Your task to perform on an android device: What's the weather going to be tomorrow? Image 0: 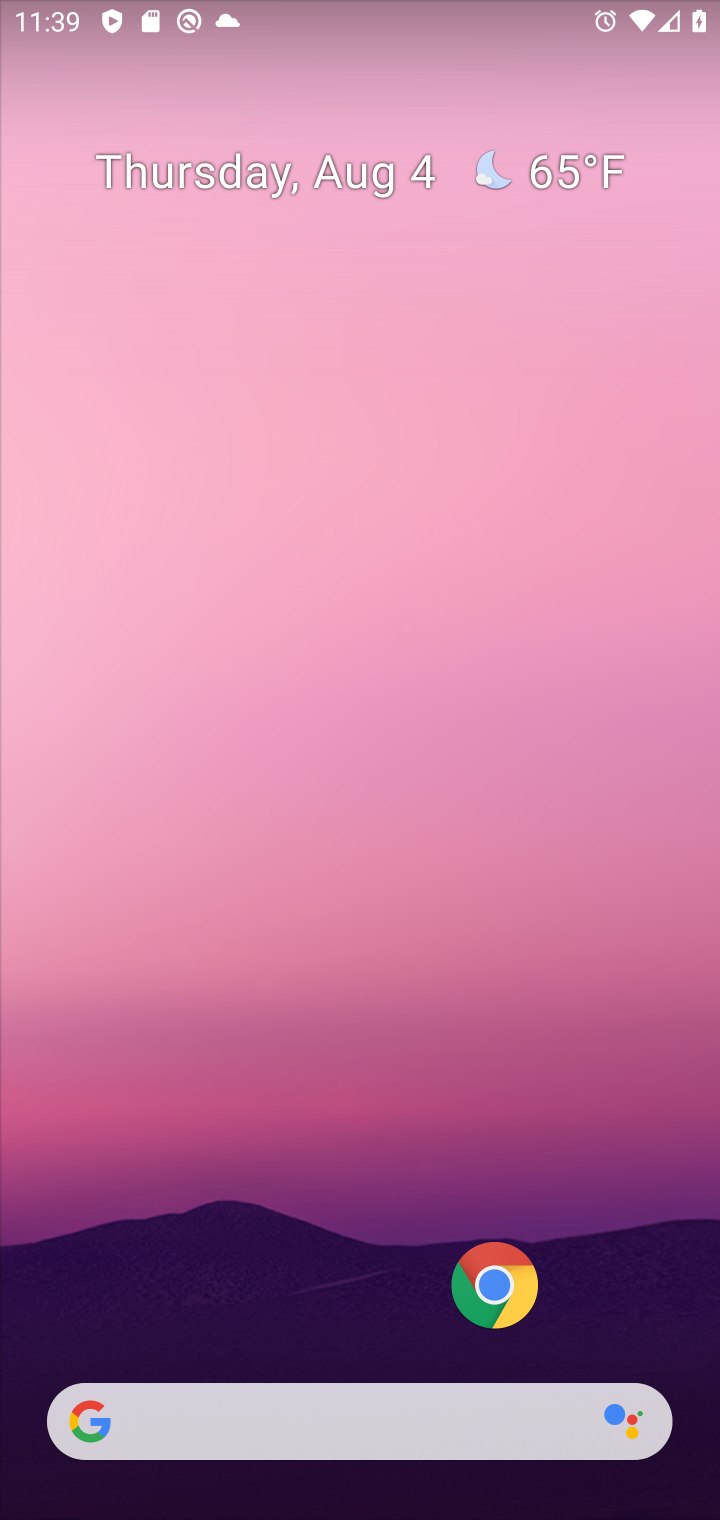
Step 0: drag from (299, 1215) to (327, 15)
Your task to perform on an android device: What's the weather going to be tomorrow? Image 1: 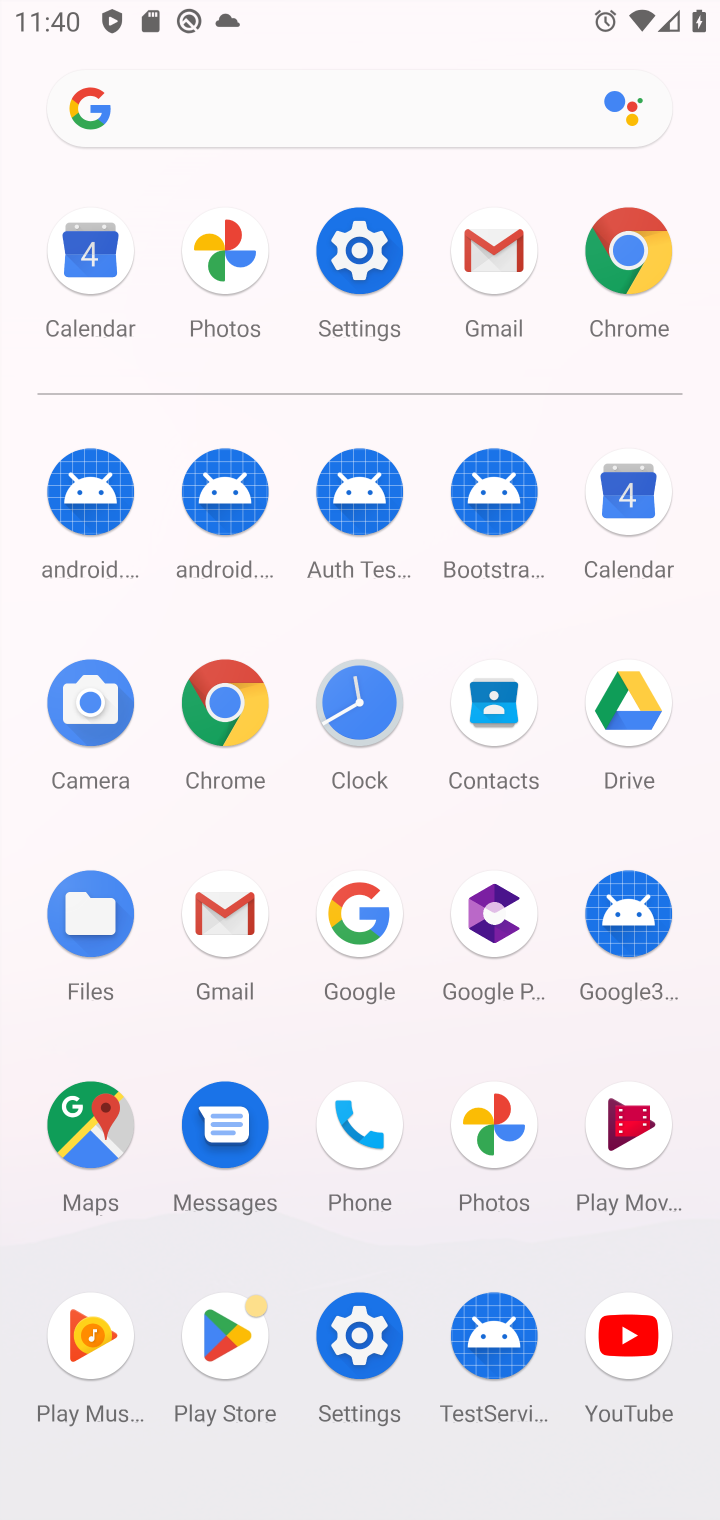
Step 1: click (621, 279)
Your task to perform on an android device: What's the weather going to be tomorrow? Image 2: 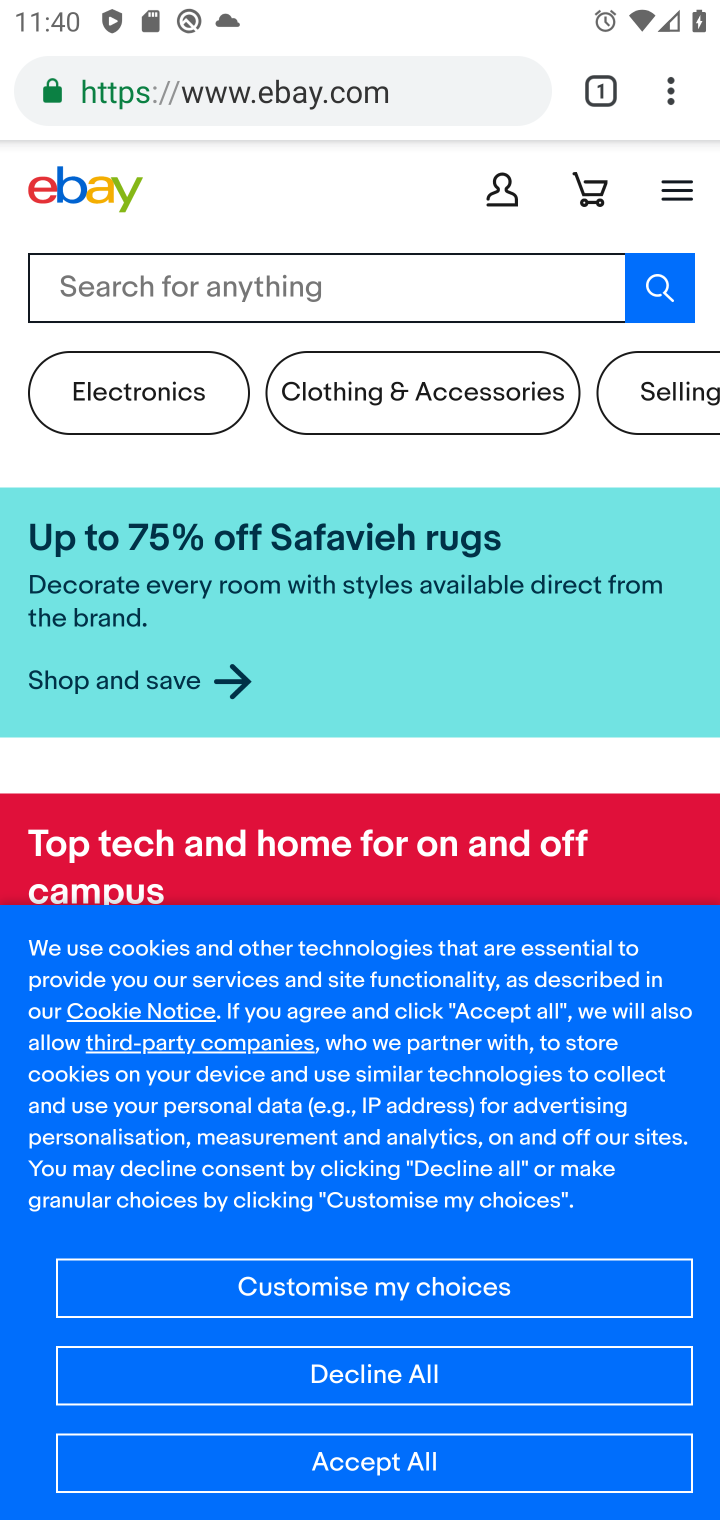
Step 2: click (351, 99)
Your task to perform on an android device: What's the weather going to be tomorrow? Image 3: 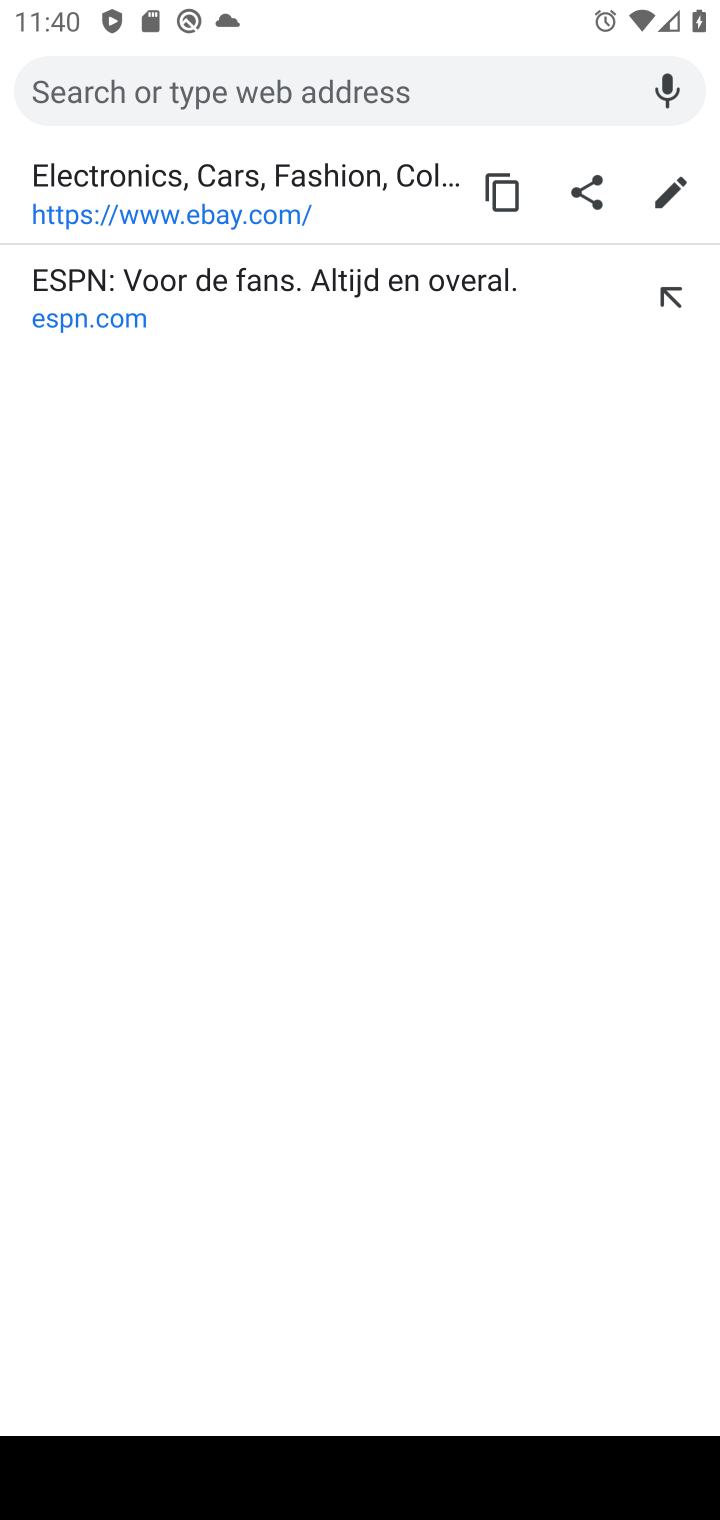
Step 3: type "What's the weather going to be tomorrow?"
Your task to perform on an android device: What's the weather going to be tomorrow? Image 4: 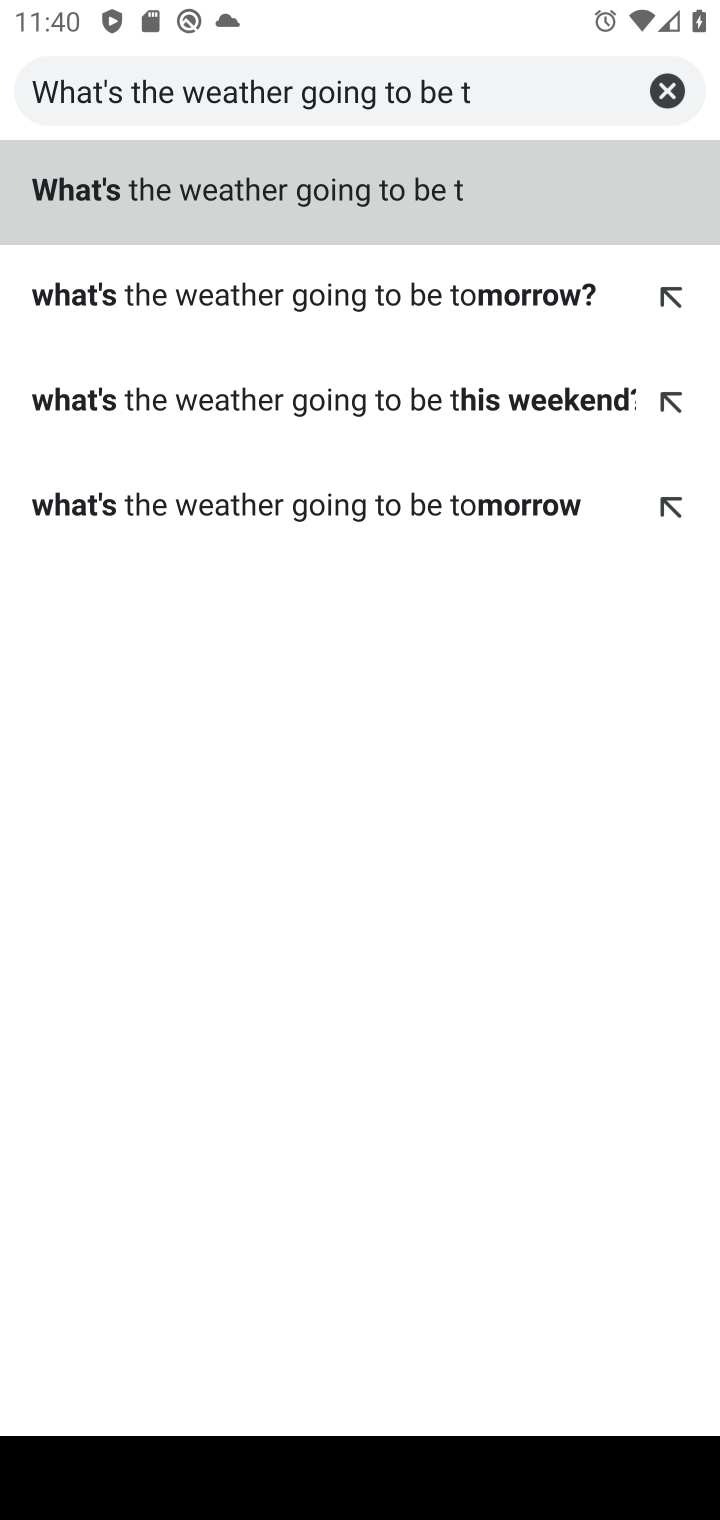
Step 4: type "What's the weather going to be tomorrow?"
Your task to perform on an android device: What's the weather going to be tomorrow? Image 5: 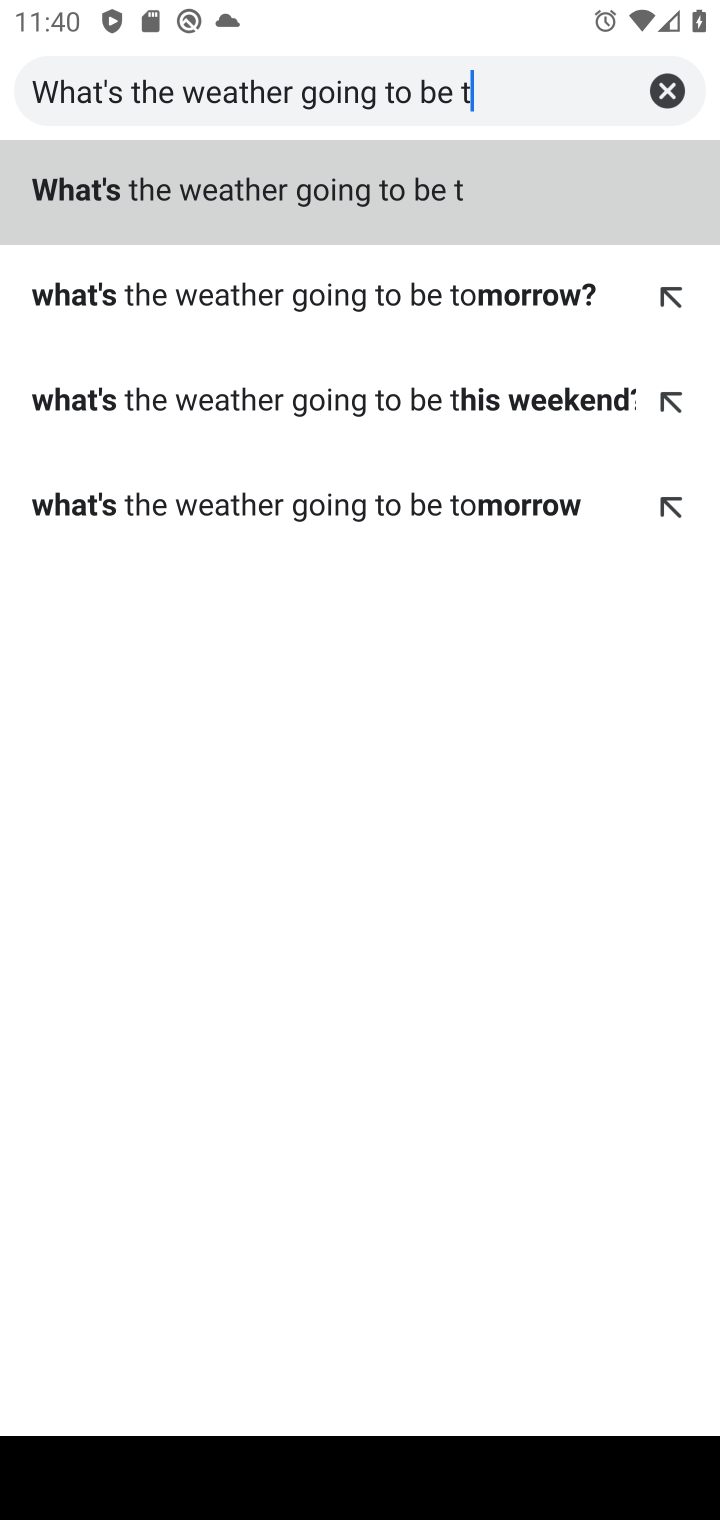
Step 5: click (370, 191)
Your task to perform on an android device: What's the weather going to be tomorrow? Image 6: 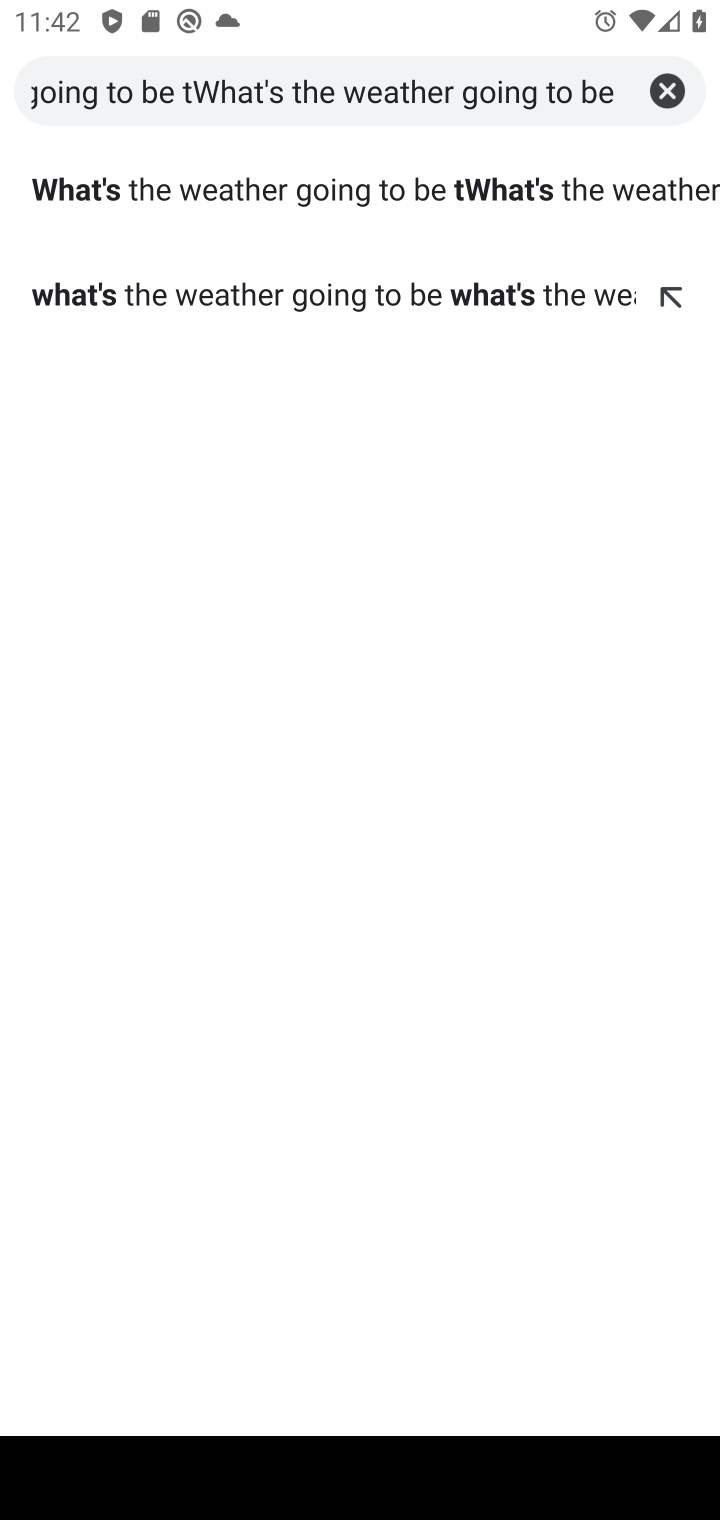
Step 6: click (663, 86)
Your task to perform on an android device: What's the weather going to be tomorrow? Image 7: 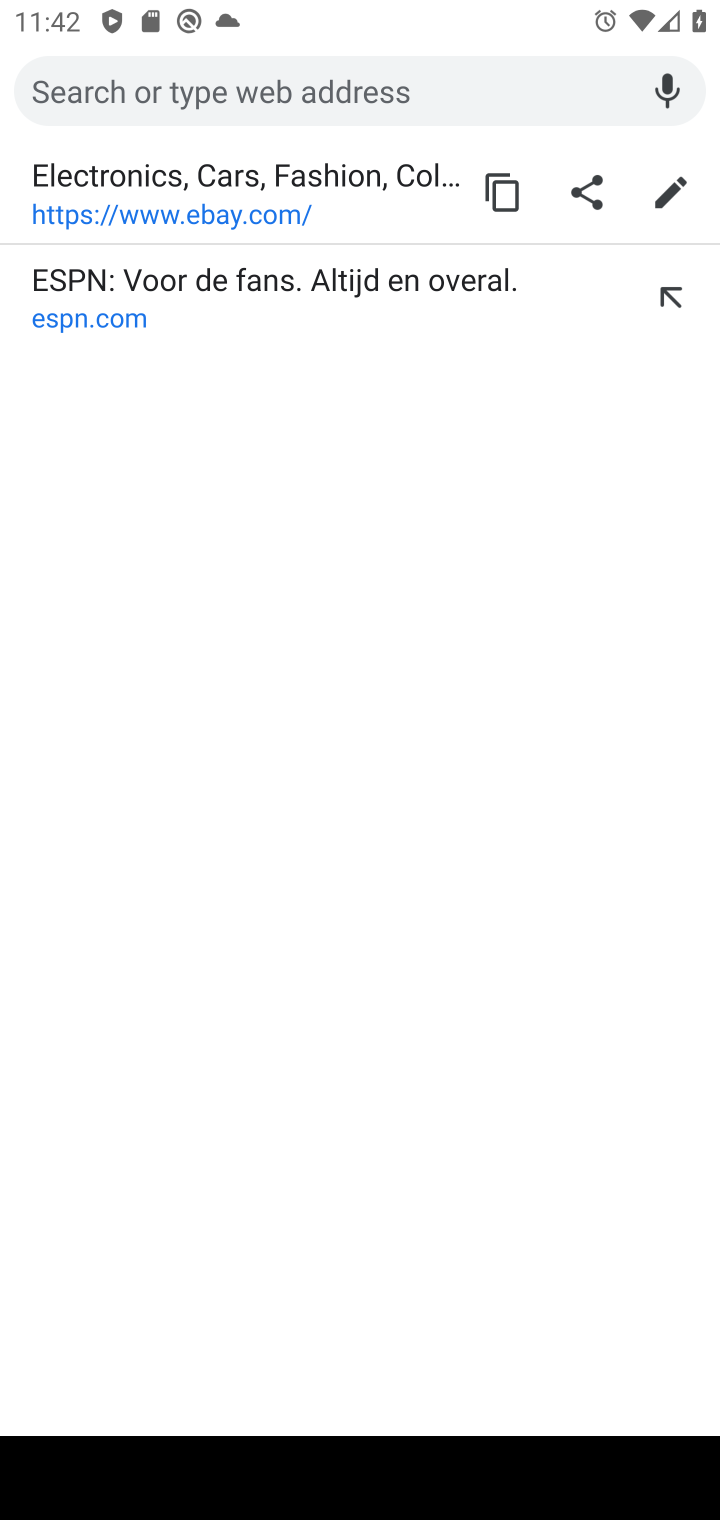
Step 7: type "What's the weather going to be tomorrow?"
Your task to perform on an android device: What's the weather going to be tomorrow? Image 8: 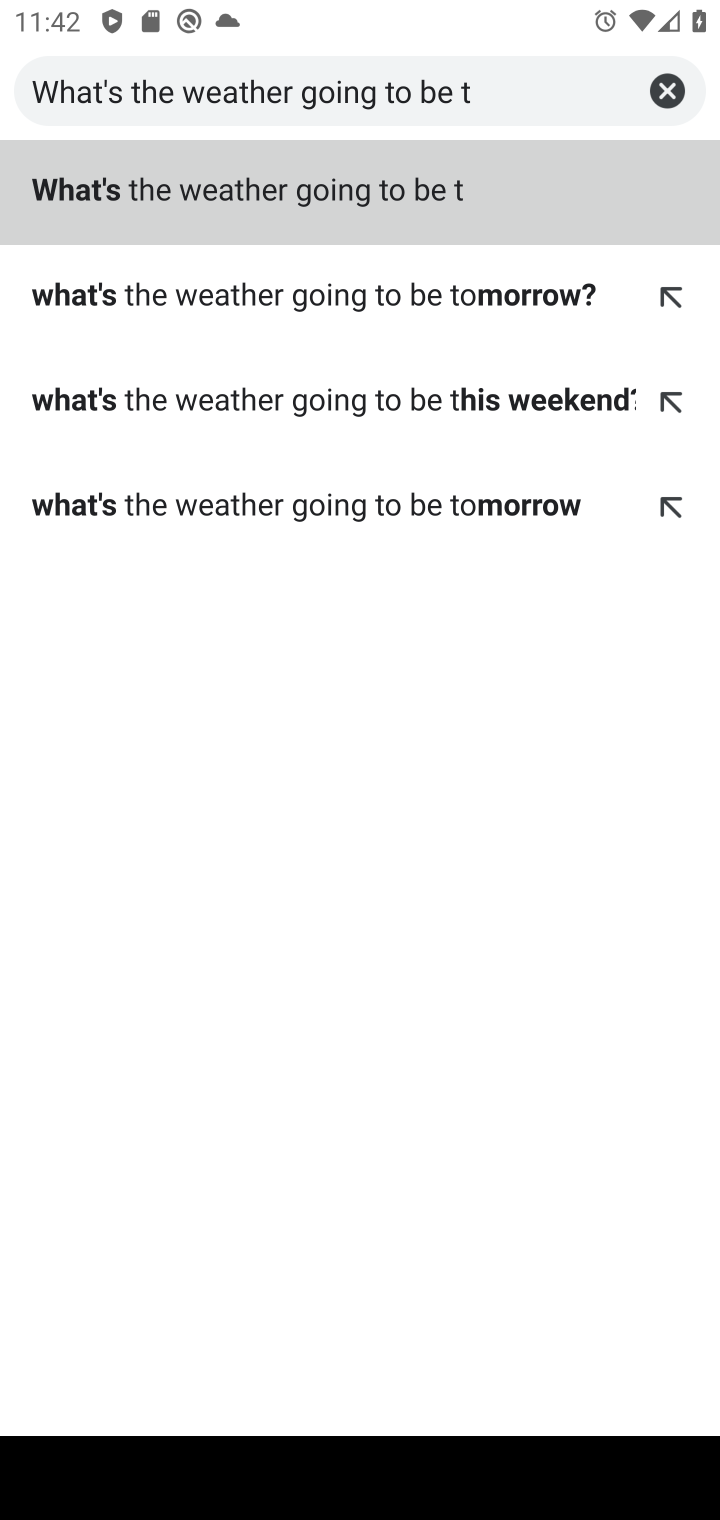
Step 8: click (219, 213)
Your task to perform on an android device: What's the weather going to be tomorrow? Image 9: 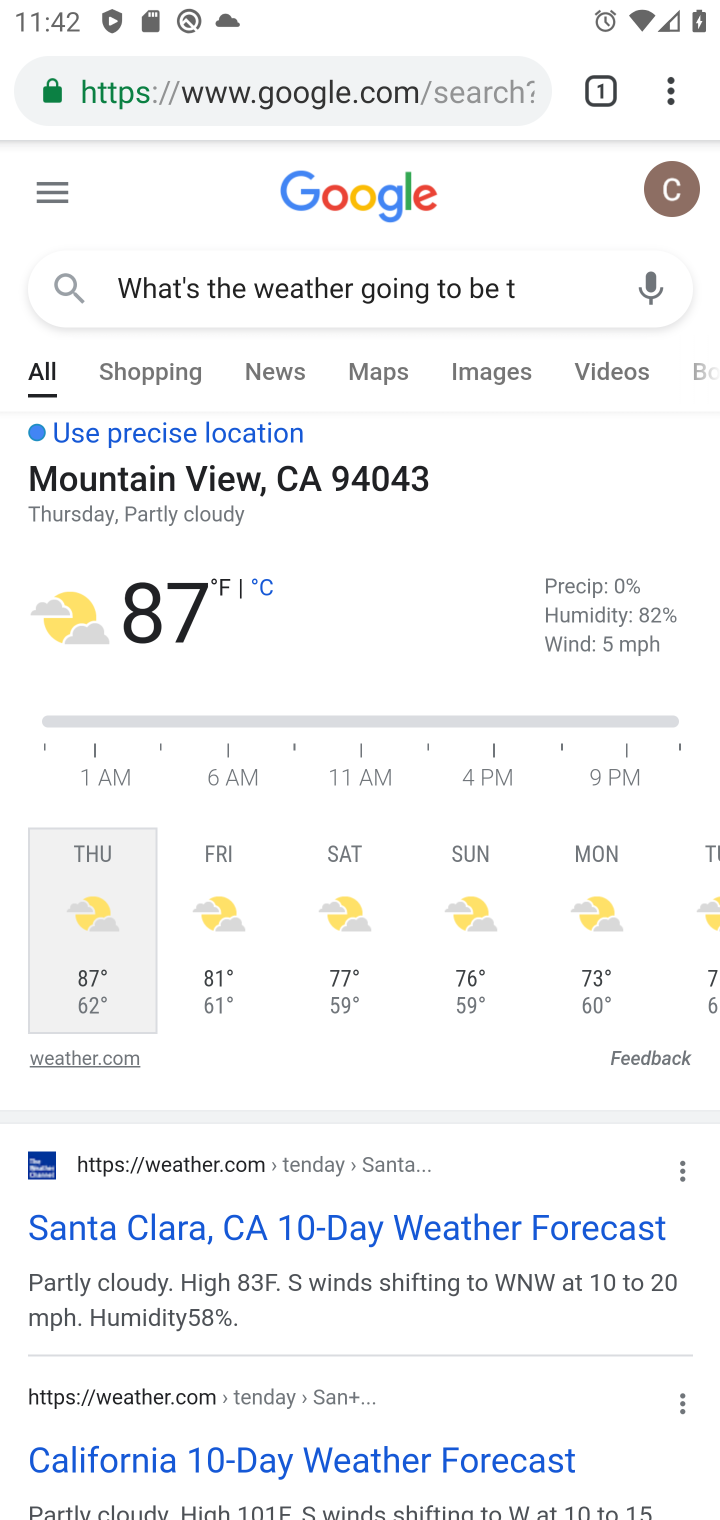
Step 9: task complete